Your task to perform on an android device: Search for "razer blade" on costco.com, select the first entry, add it to the cart, then select checkout. Image 0: 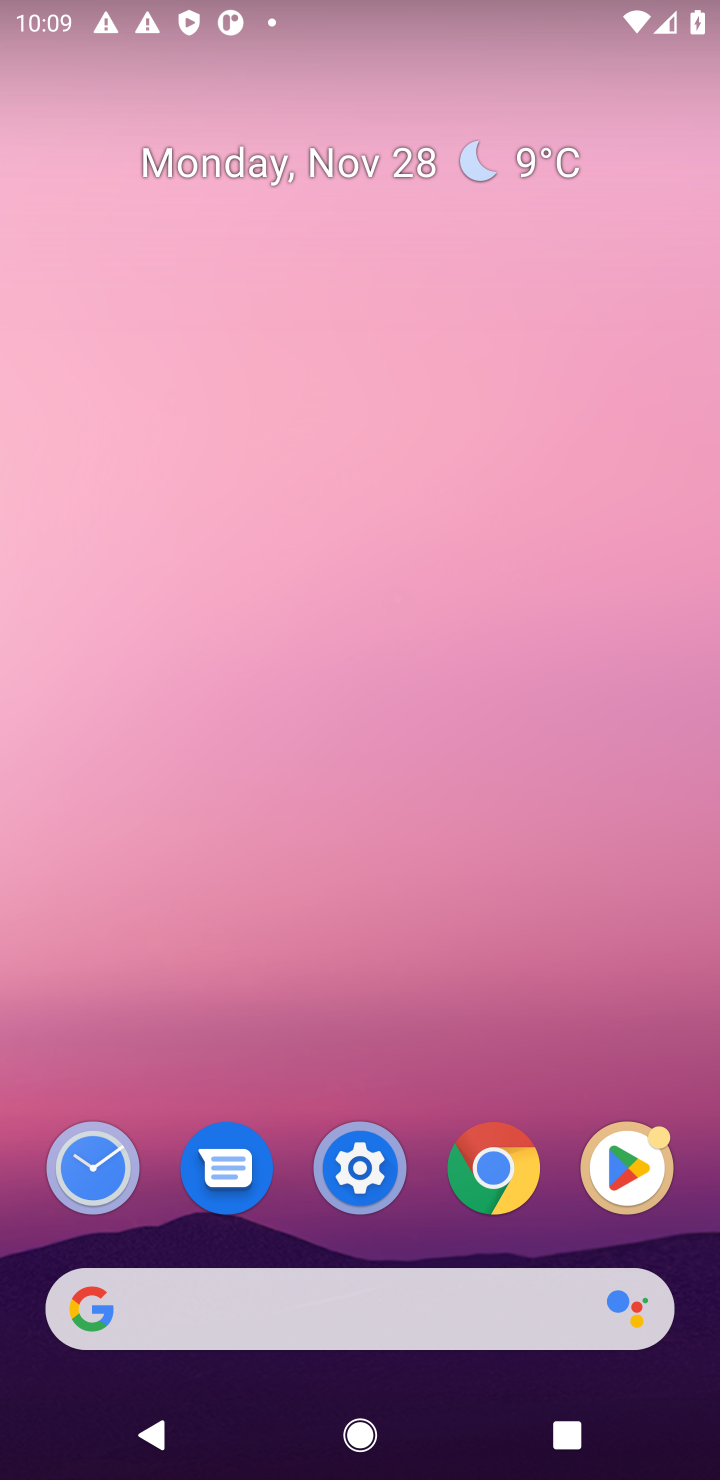
Step 0: click (368, 1338)
Your task to perform on an android device: Search for "razer blade" on costco.com, select the first entry, add it to the cart, then select checkout. Image 1: 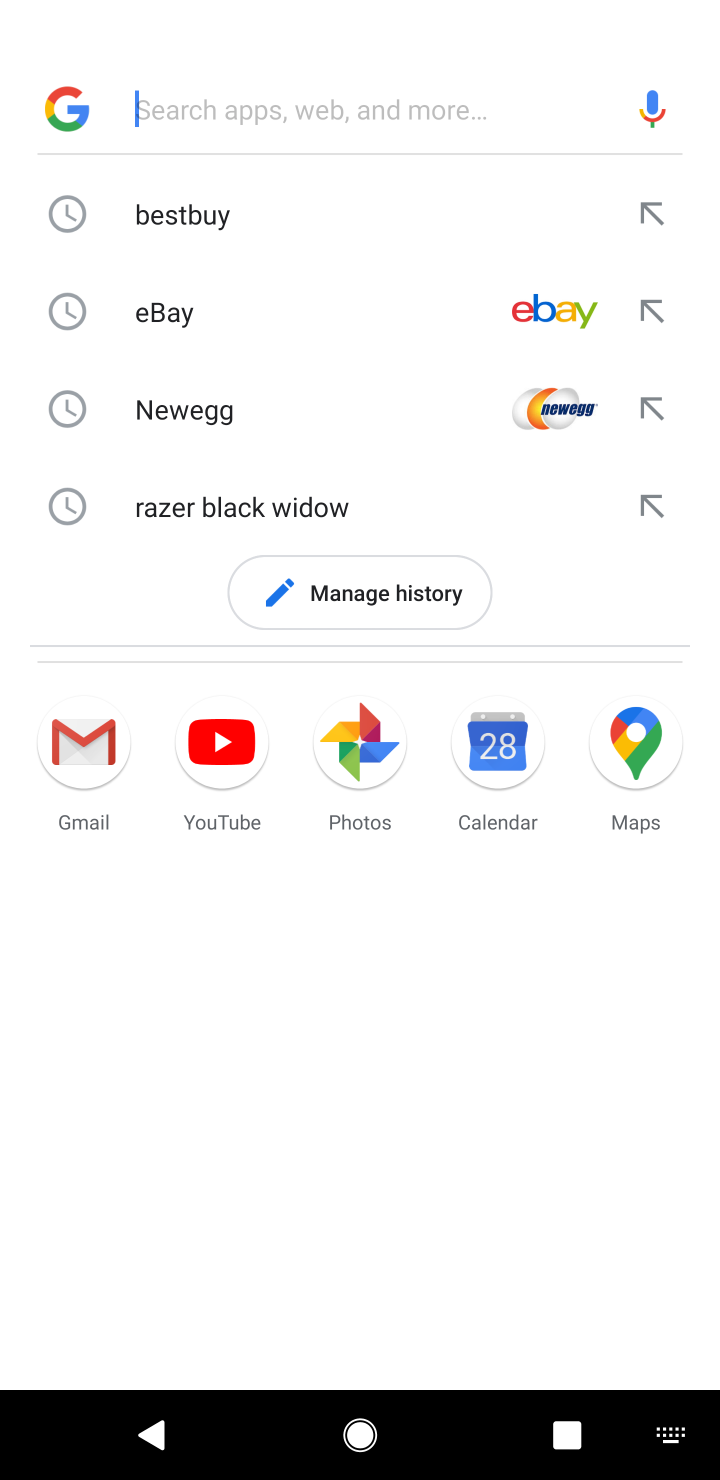
Step 1: type "costco.com"
Your task to perform on an android device: Search for "razer blade" on costco.com, select the first entry, add it to the cart, then select checkout. Image 2: 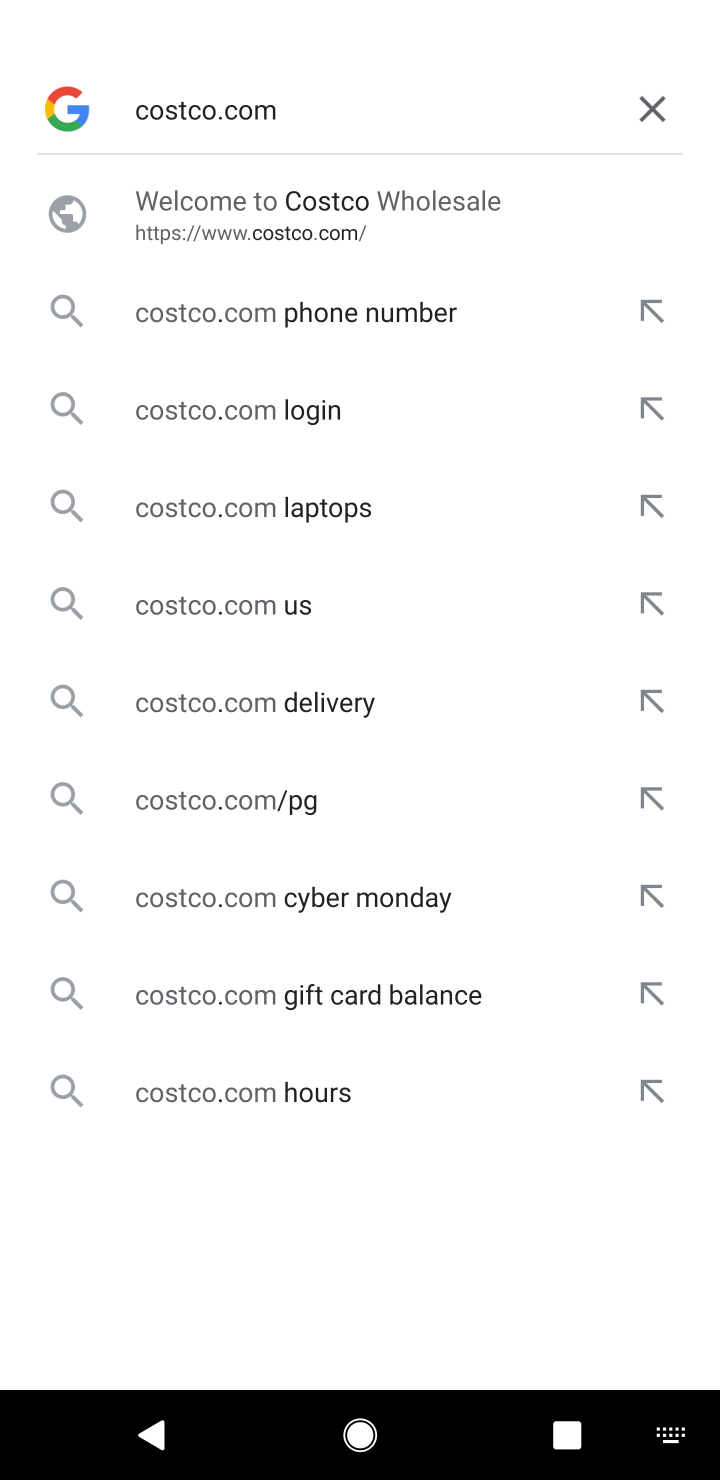
Step 2: click (228, 208)
Your task to perform on an android device: Search for "razer blade" on costco.com, select the first entry, add it to the cart, then select checkout. Image 3: 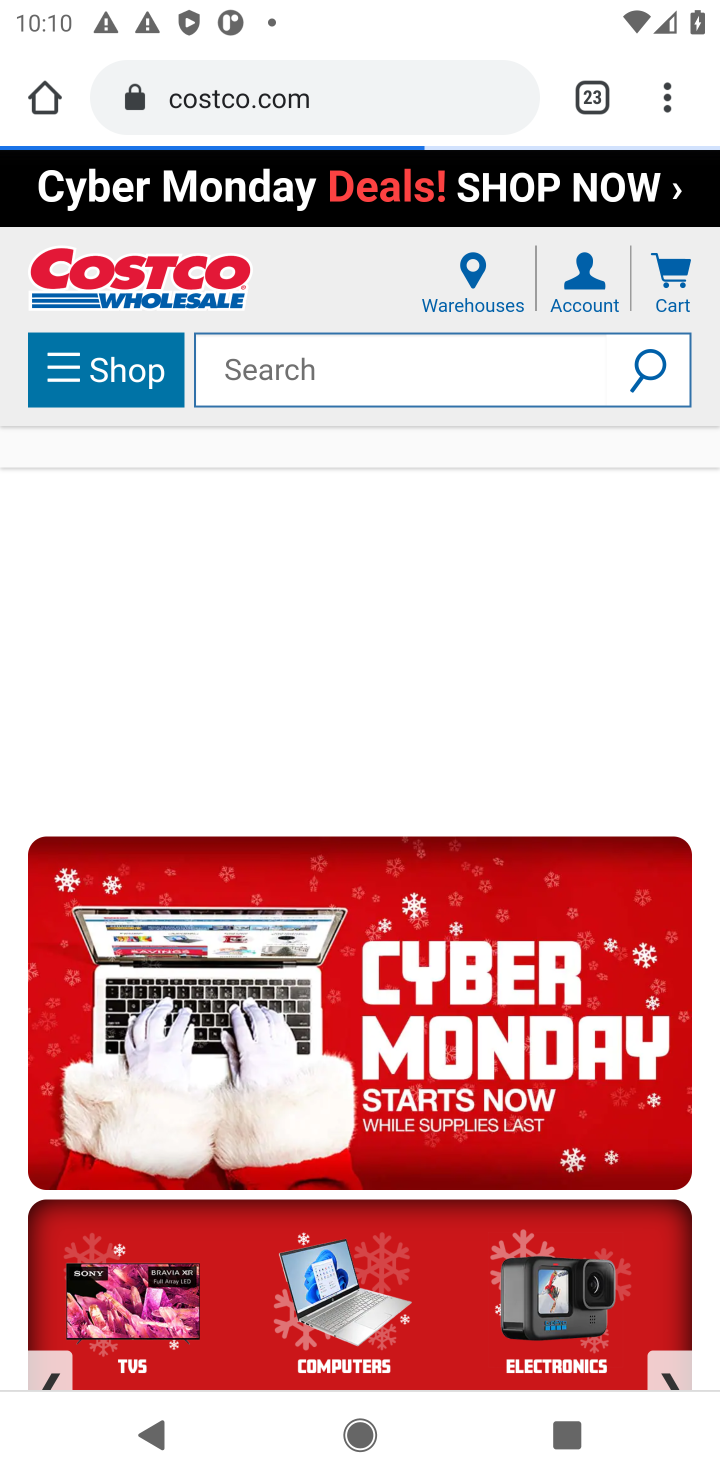
Step 3: click (291, 369)
Your task to perform on an android device: Search for "razer blade" on costco.com, select the first entry, add it to the cart, then select checkout. Image 4: 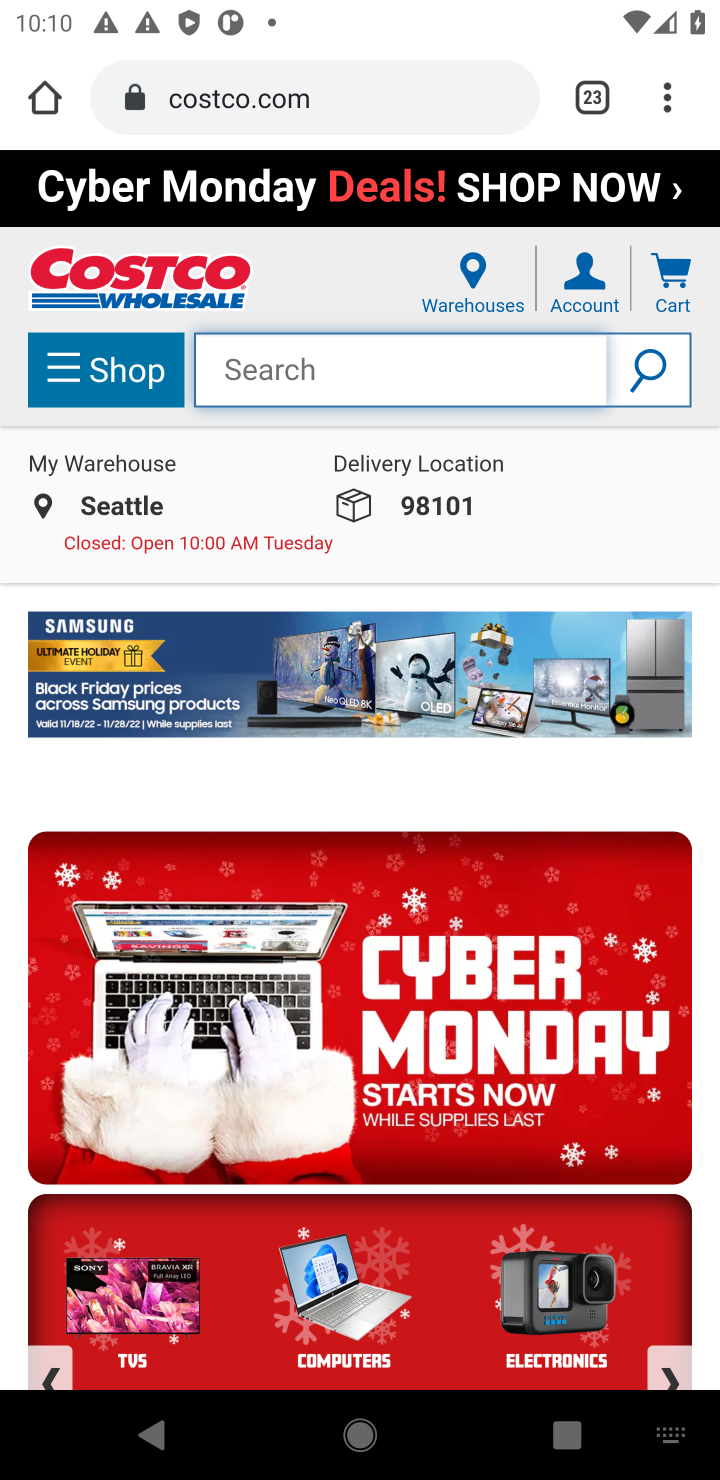
Step 4: type "razer blade"
Your task to perform on an android device: Search for "razer blade" on costco.com, select the first entry, add it to the cart, then select checkout. Image 5: 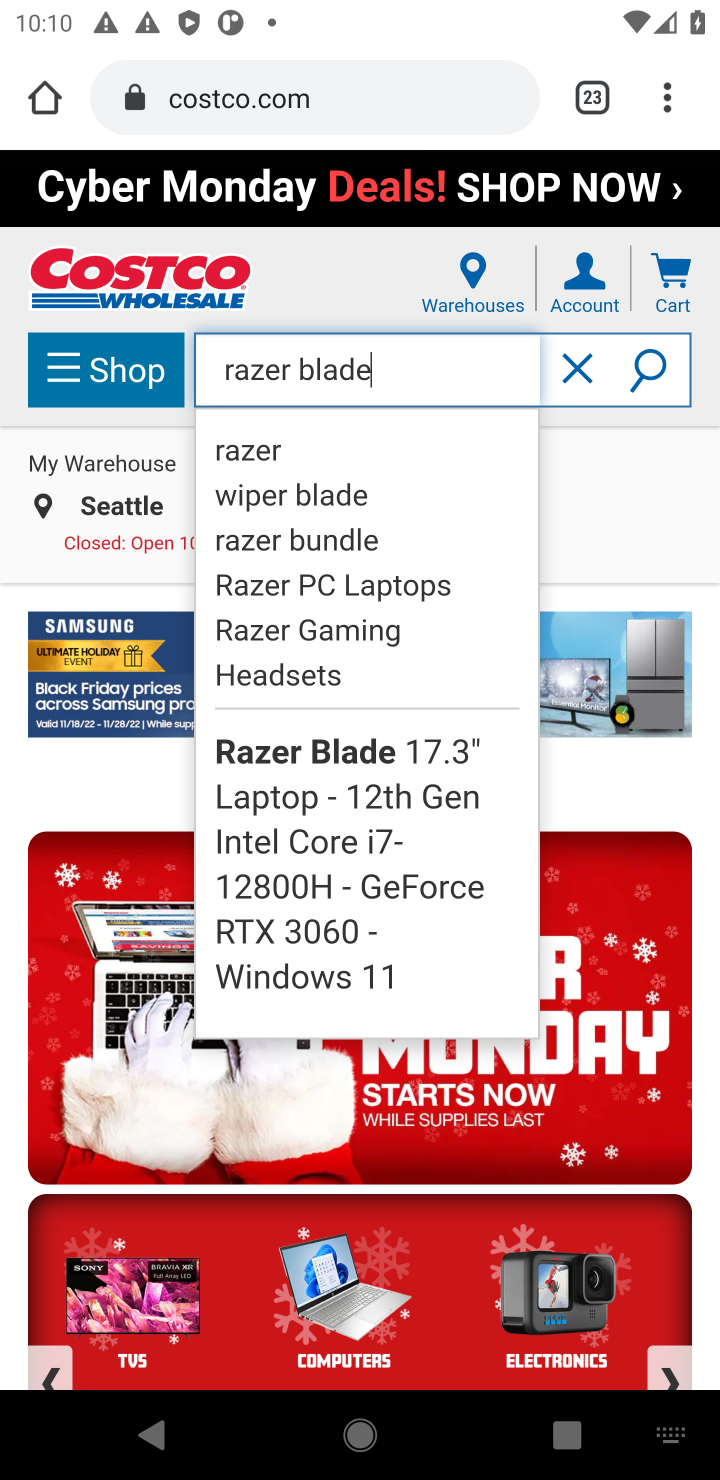
Step 5: click (649, 366)
Your task to perform on an android device: Search for "razer blade" on costco.com, select the first entry, add it to the cart, then select checkout. Image 6: 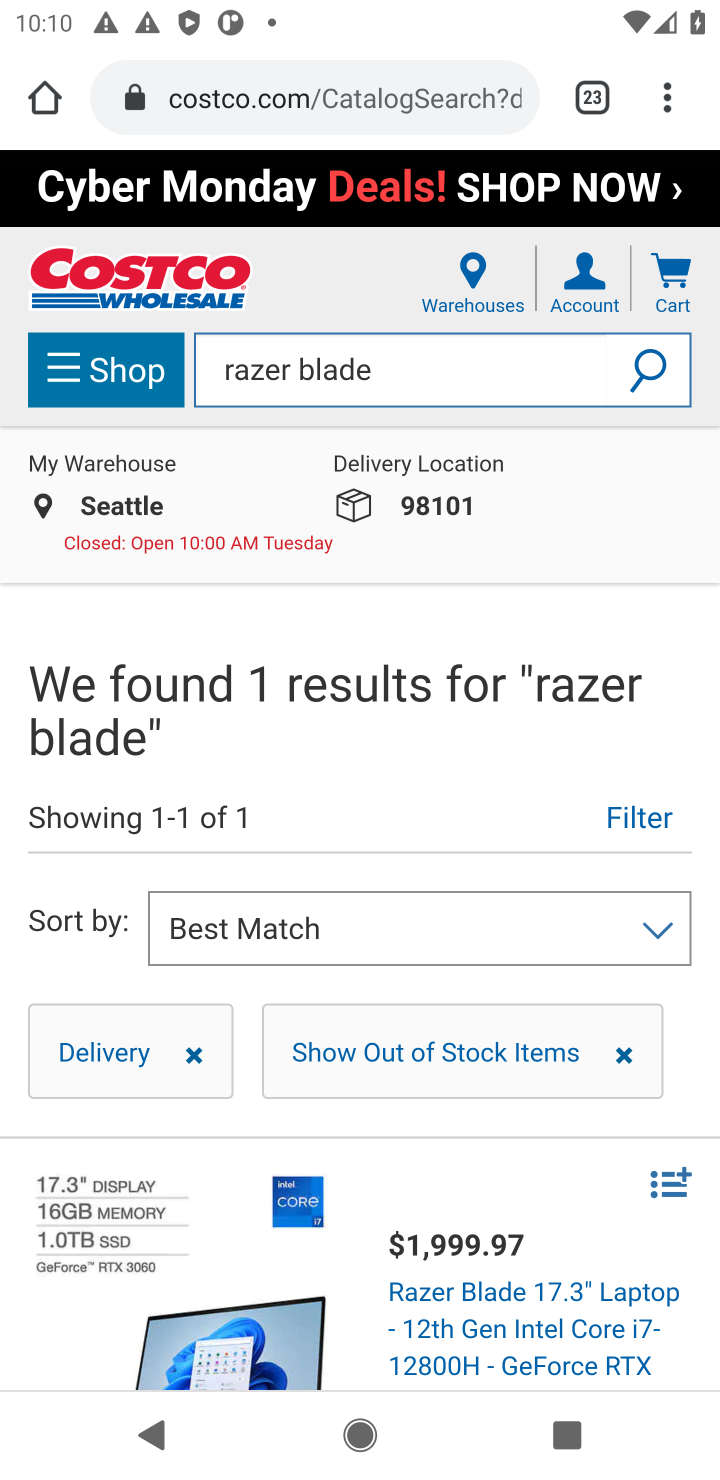
Step 6: task complete